Your task to perform on an android device: empty trash in the gmail app Image 0: 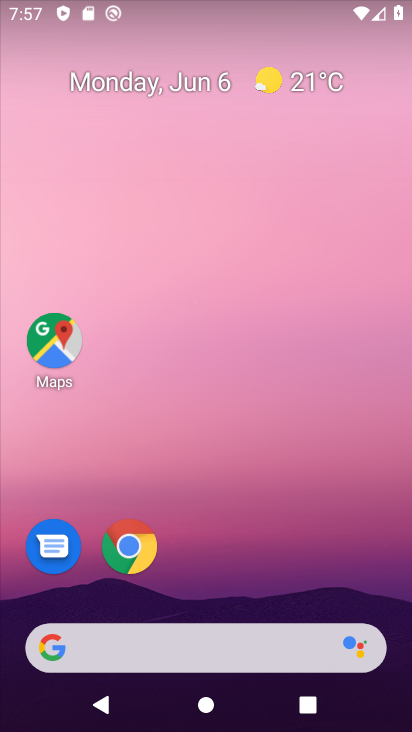
Step 0: click (296, 2)
Your task to perform on an android device: empty trash in the gmail app Image 1: 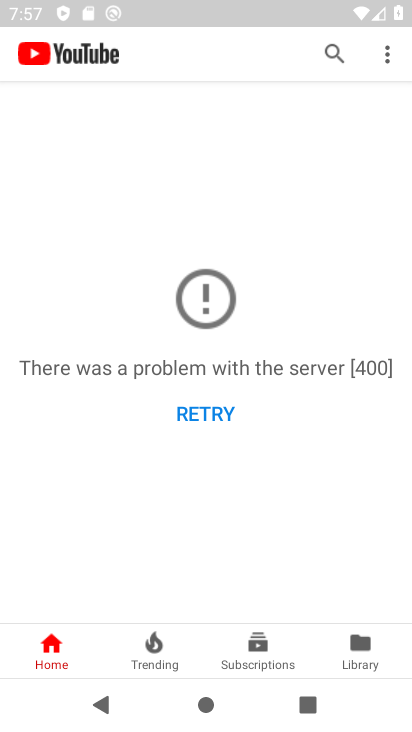
Step 1: task complete